Your task to perform on an android device: find photos in the google photos app Image 0: 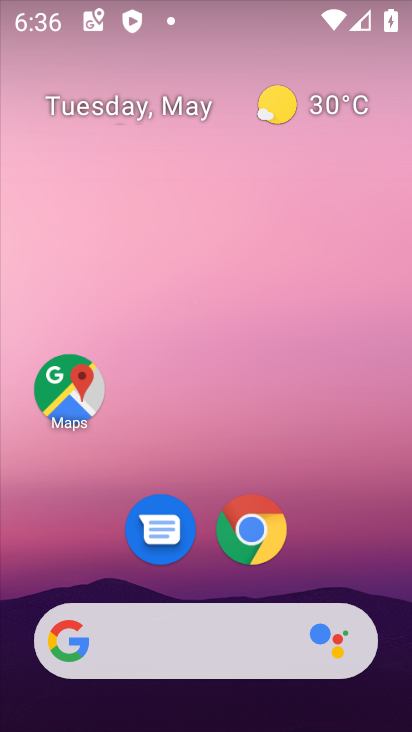
Step 0: drag from (398, 643) to (221, 63)
Your task to perform on an android device: find photos in the google photos app Image 1: 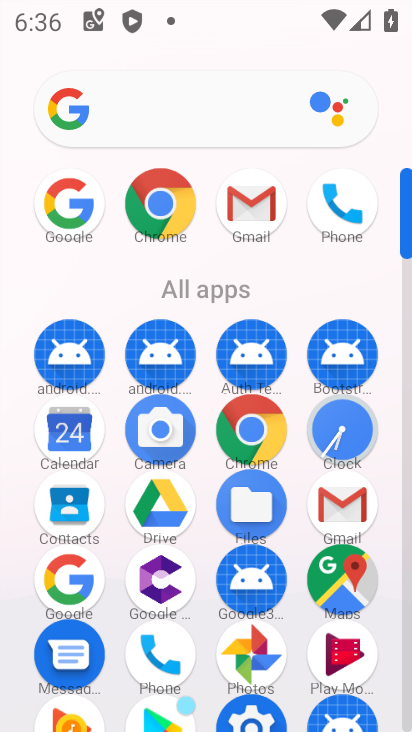
Step 1: click (256, 659)
Your task to perform on an android device: find photos in the google photos app Image 2: 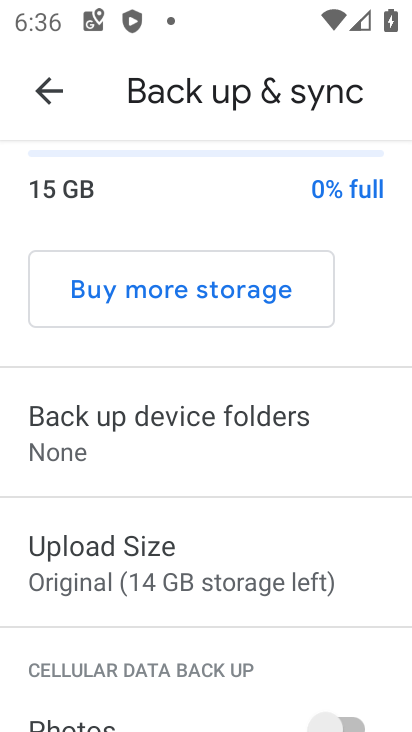
Step 2: task complete